Your task to perform on an android device: Is it going to rain today? Image 0: 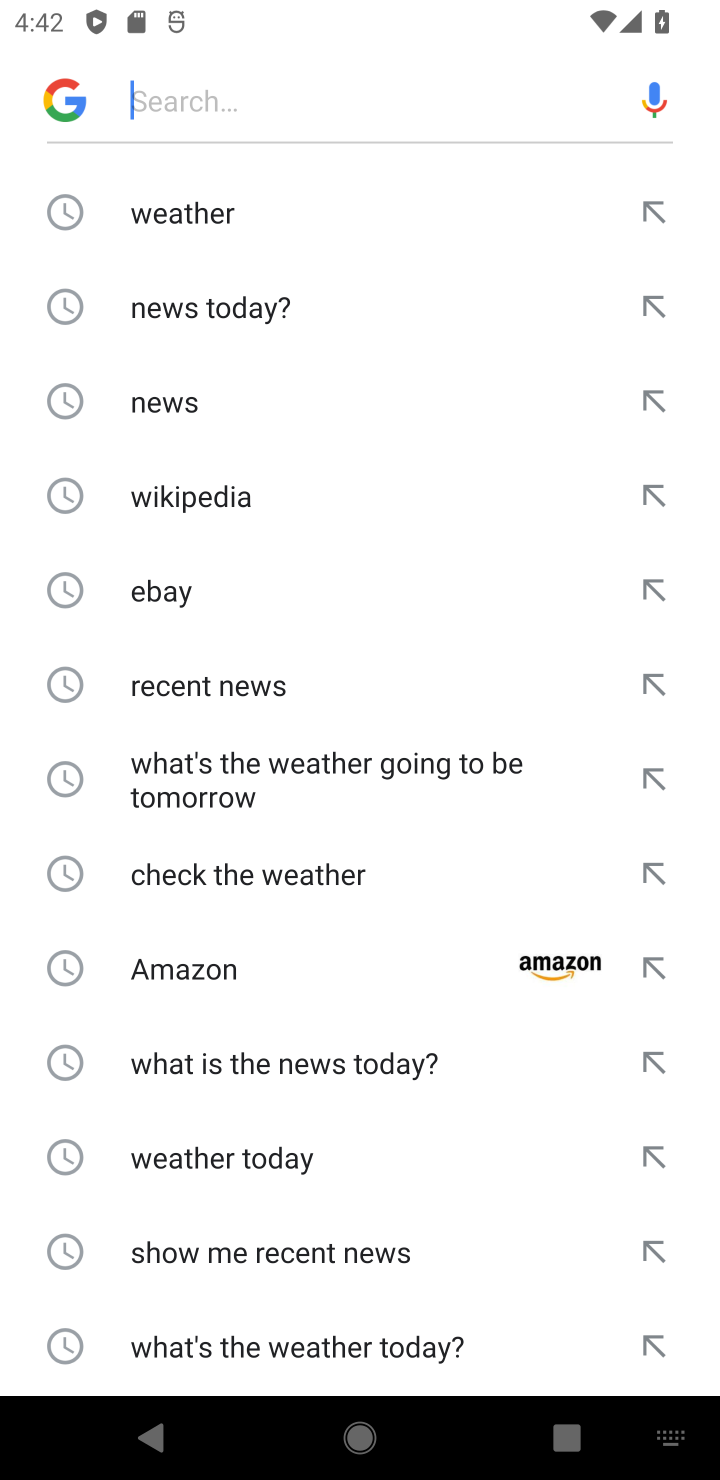
Step 0: press home button
Your task to perform on an android device: Is it going to rain today? Image 1: 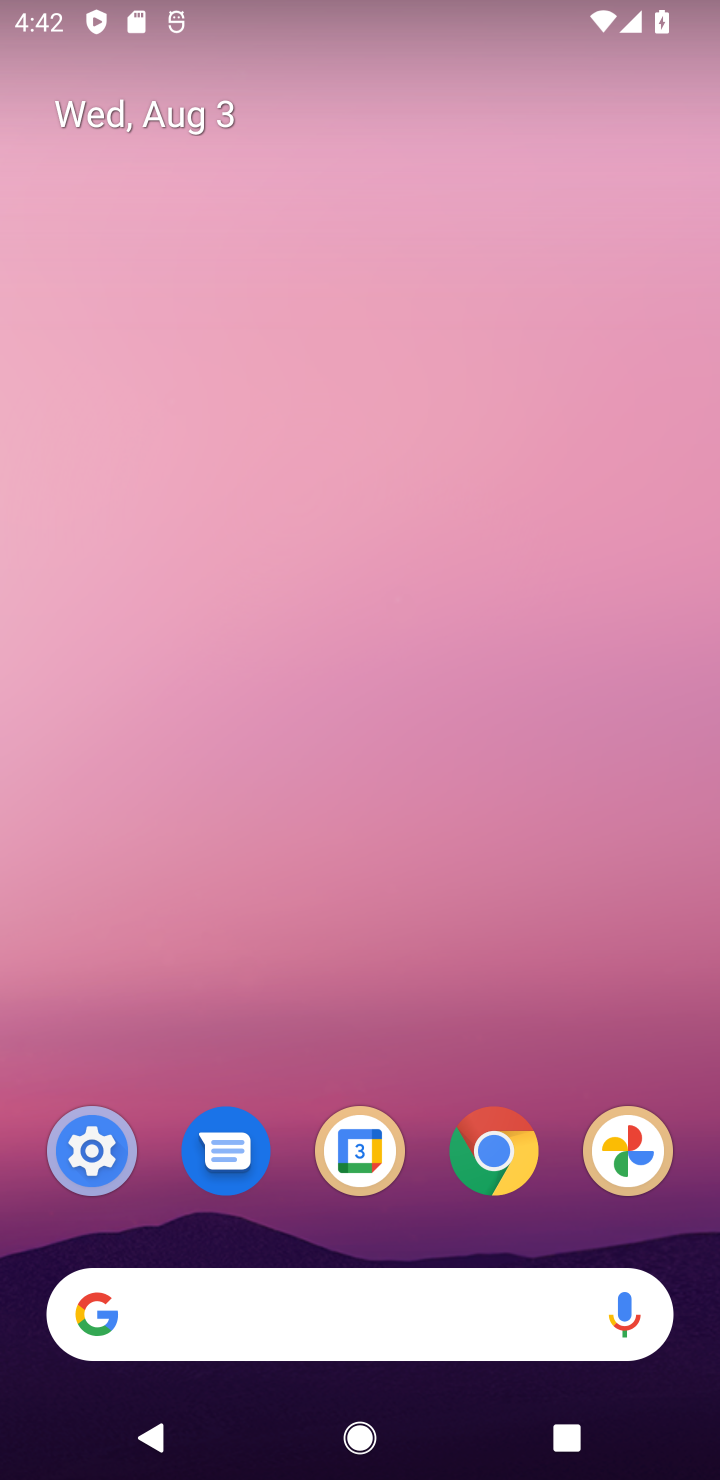
Step 1: drag from (27, 723) to (394, 763)
Your task to perform on an android device: Is it going to rain today? Image 2: 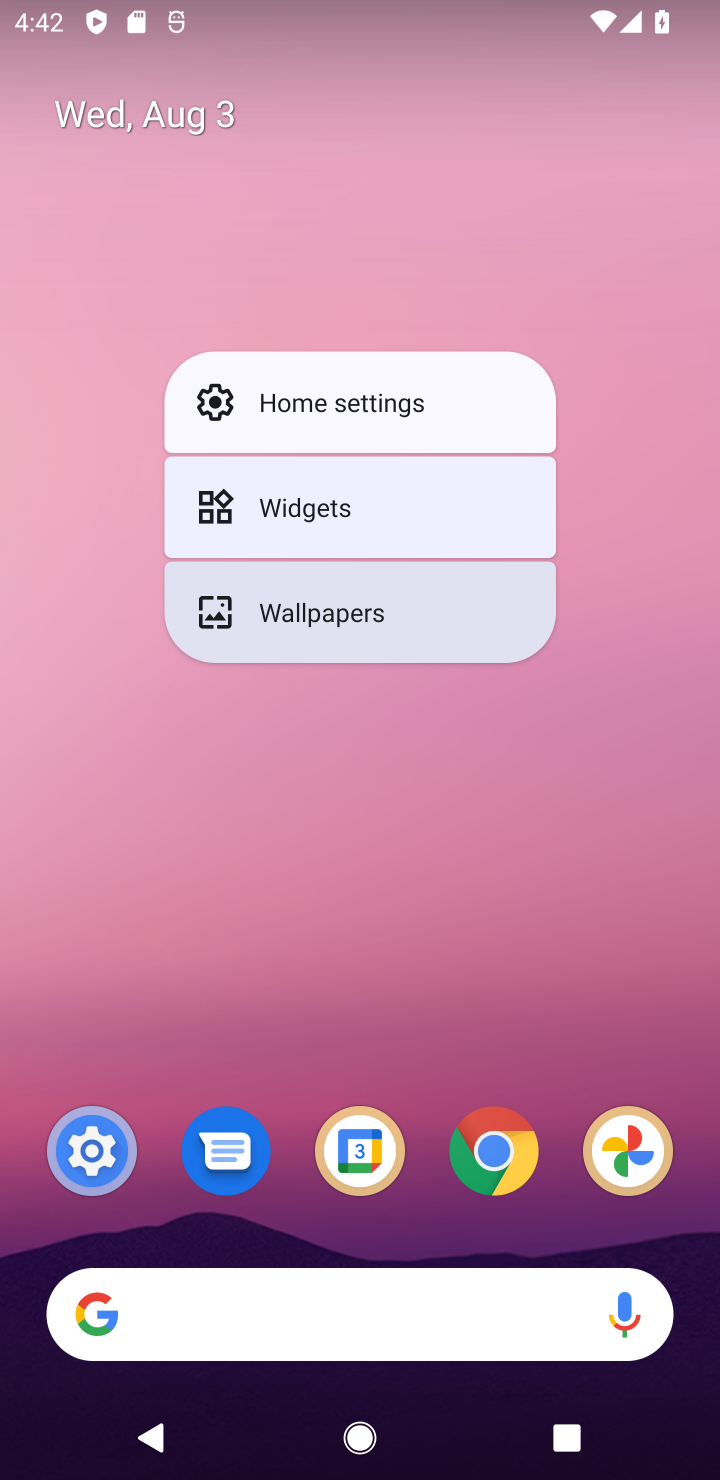
Step 2: click (110, 766)
Your task to perform on an android device: Is it going to rain today? Image 3: 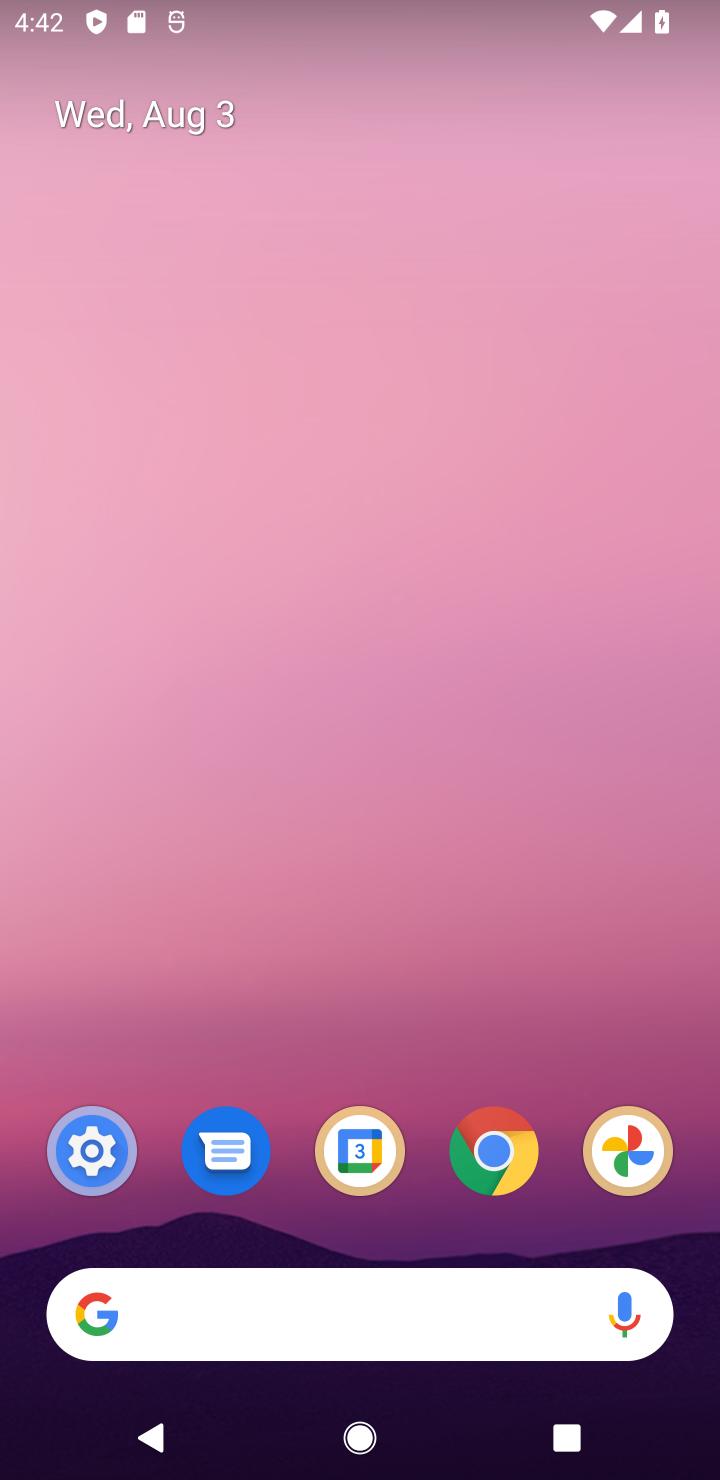
Step 3: drag from (6, 742) to (717, 814)
Your task to perform on an android device: Is it going to rain today? Image 4: 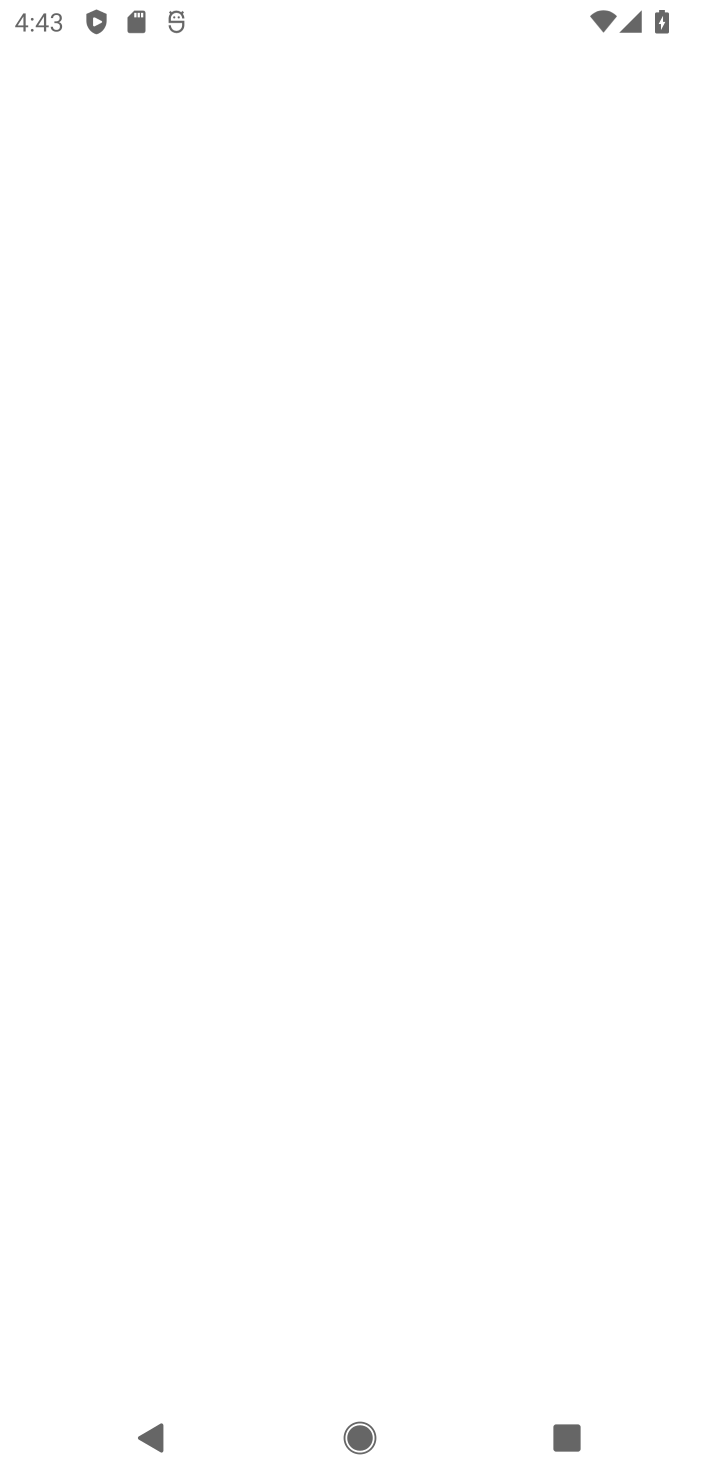
Step 4: drag from (399, 239) to (562, 798)
Your task to perform on an android device: Is it going to rain today? Image 5: 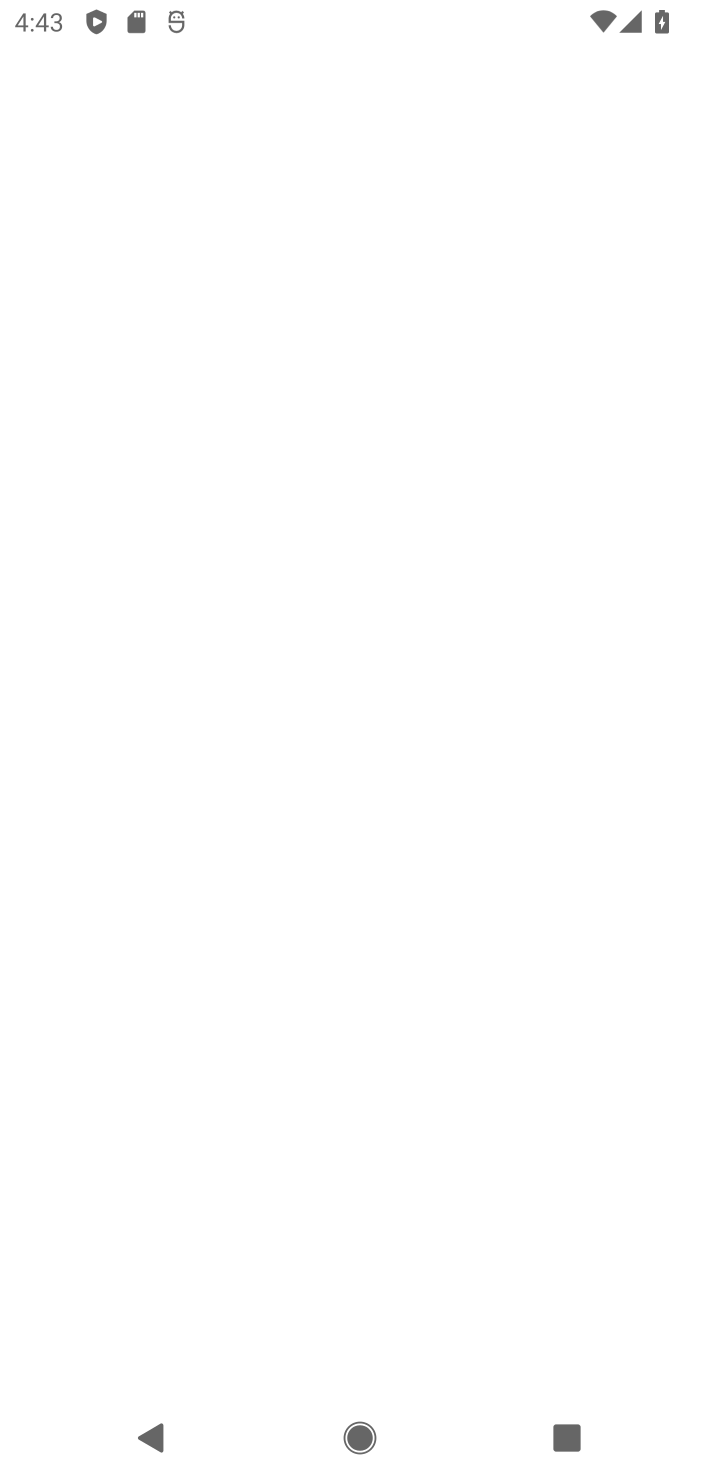
Step 5: press home button
Your task to perform on an android device: Is it going to rain today? Image 6: 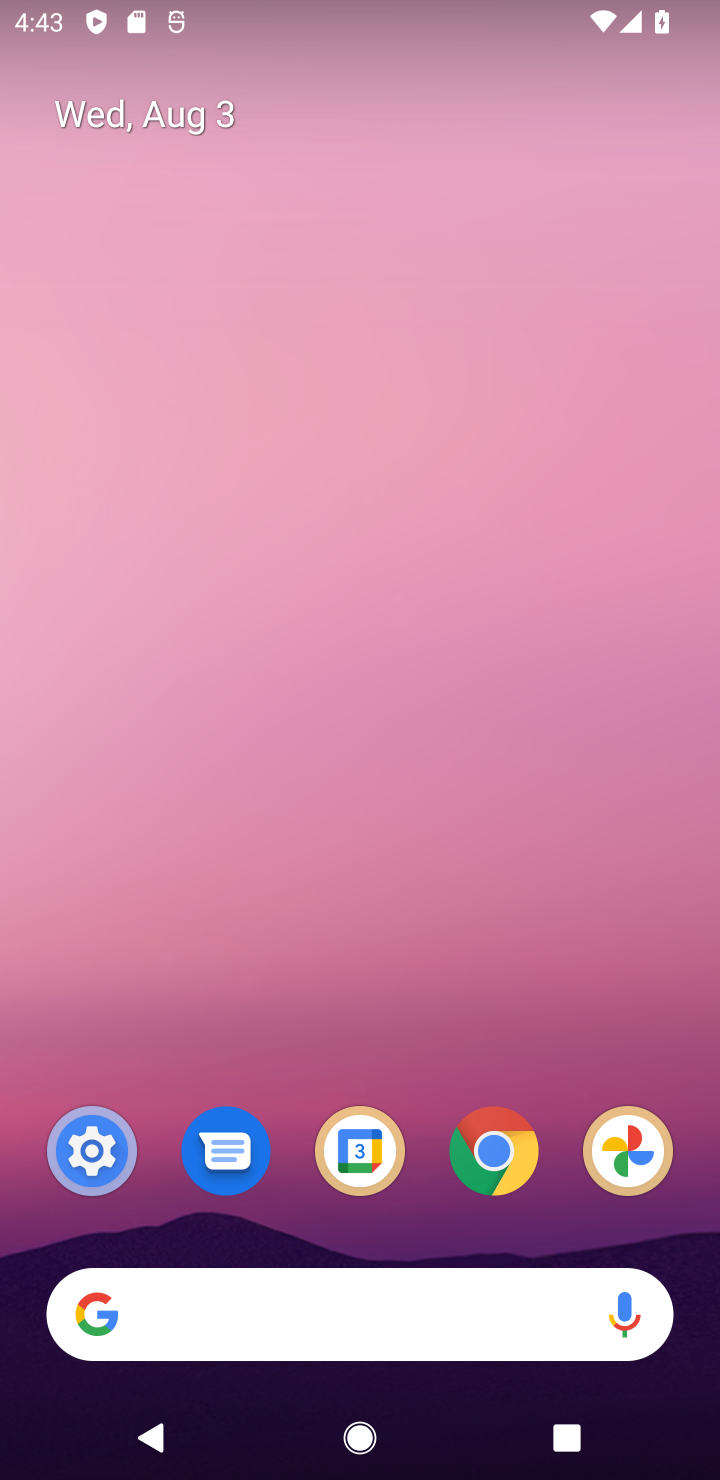
Step 6: click (405, 1341)
Your task to perform on an android device: Is it going to rain today? Image 7: 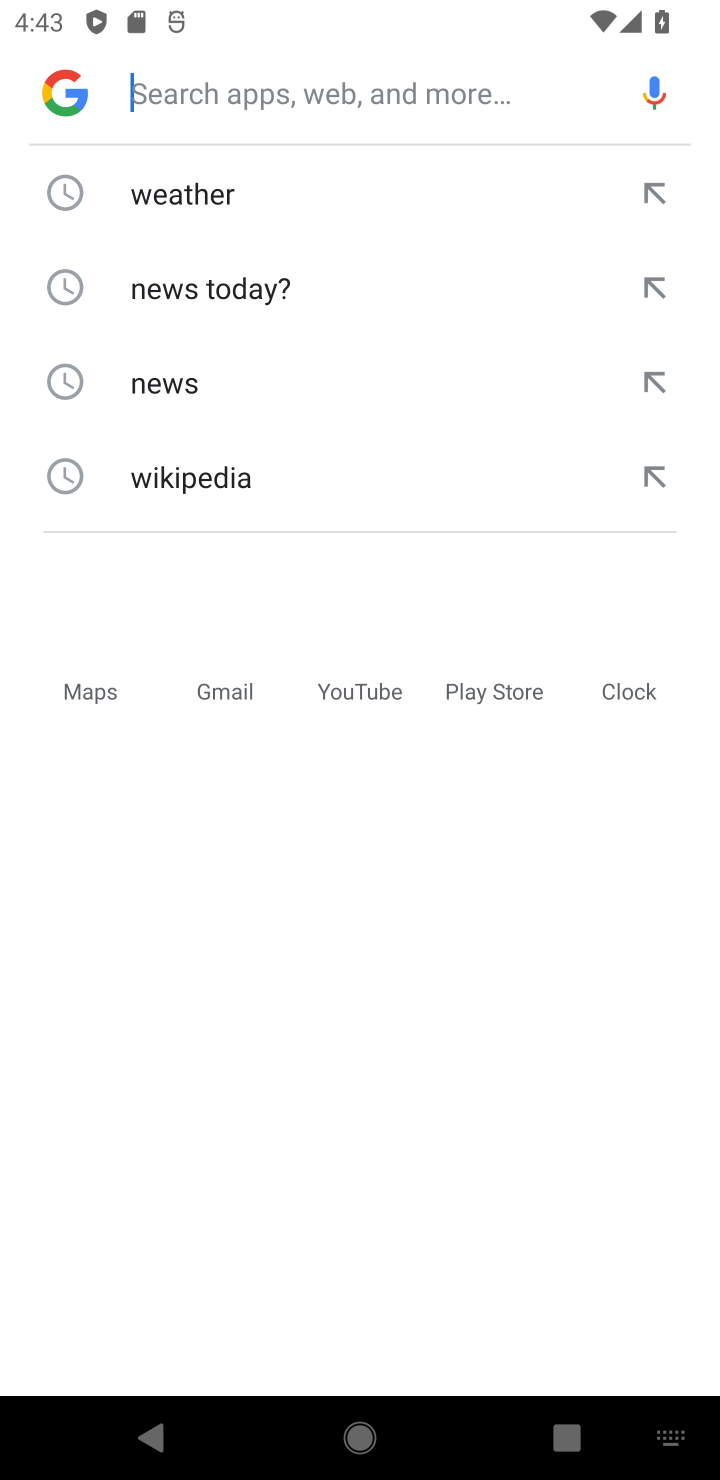
Step 7: type "weather"
Your task to perform on an android device: Is it going to rain today? Image 8: 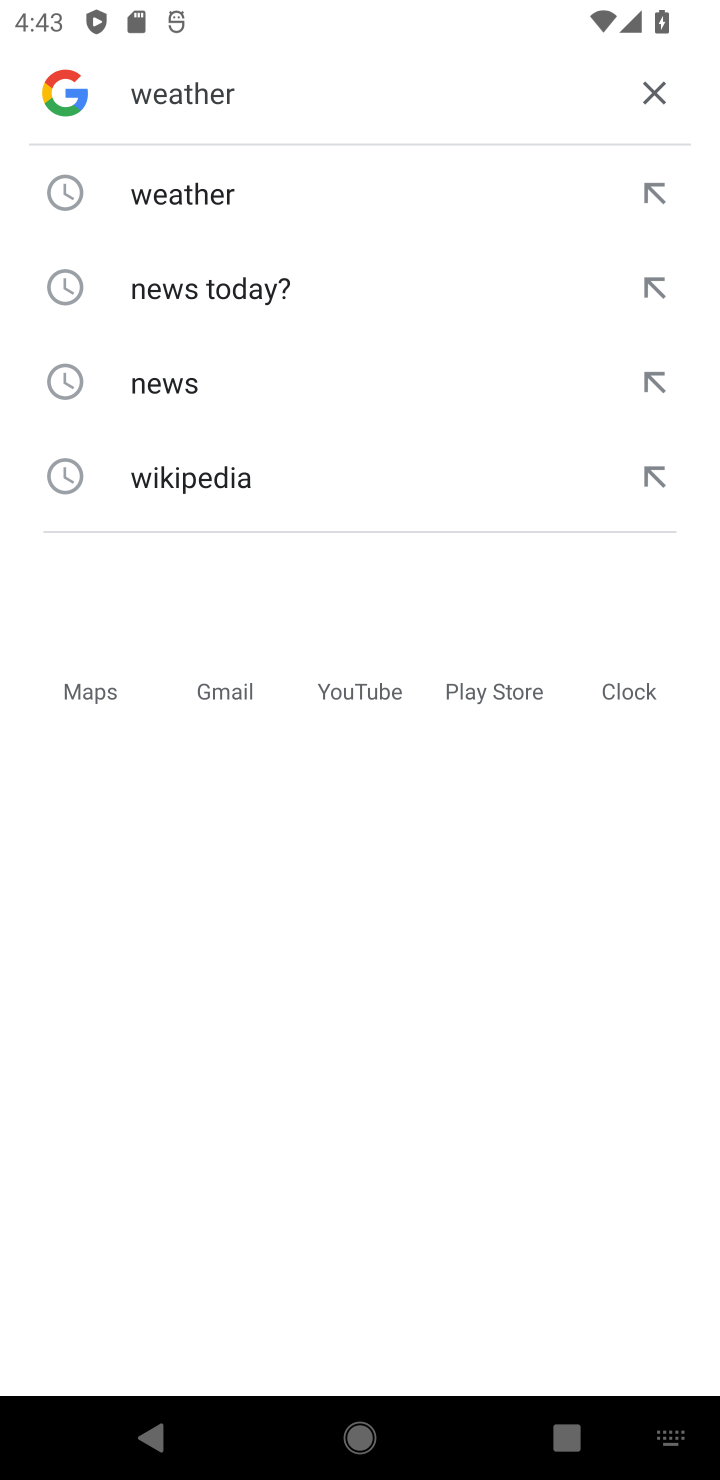
Step 8: click (155, 178)
Your task to perform on an android device: Is it going to rain today? Image 9: 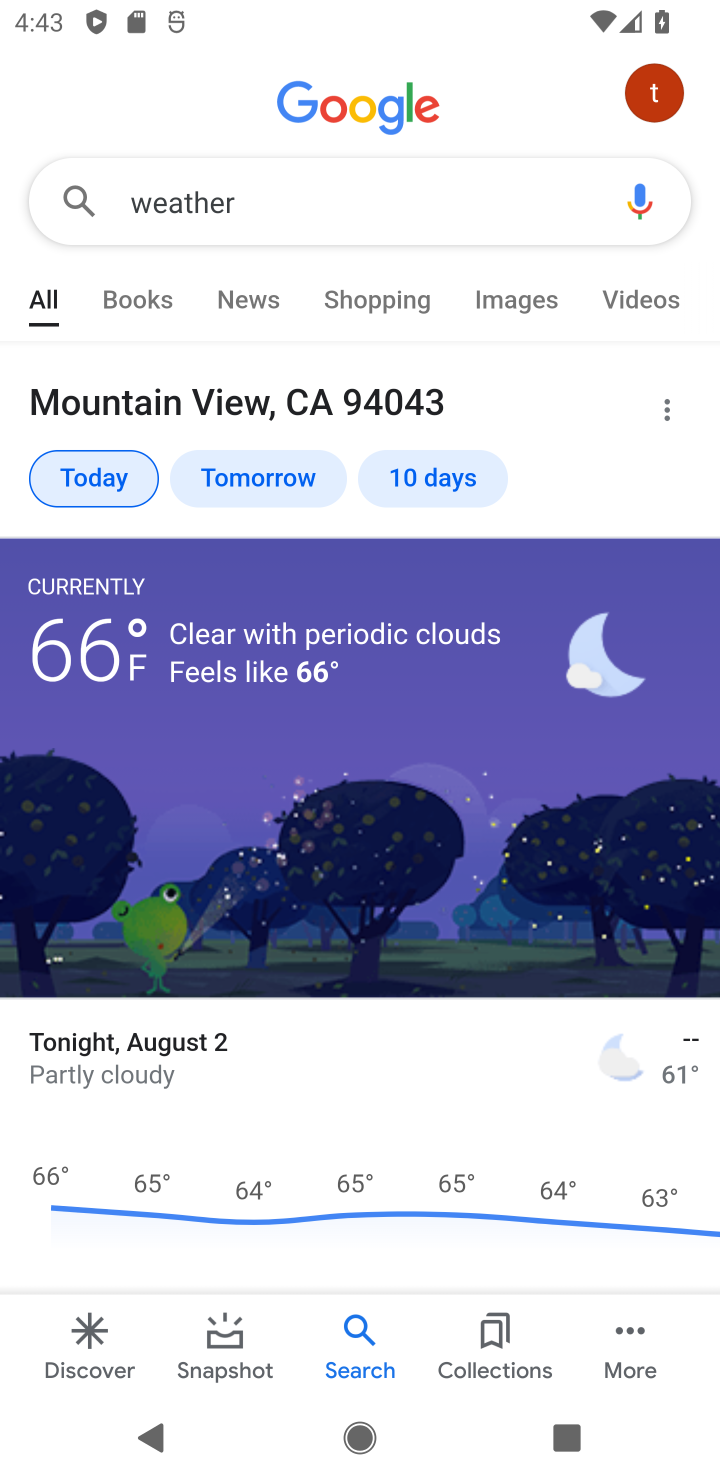
Step 9: task complete